Your task to perform on an android device: read, delete, or share a saved page in the chrome app Image 0: 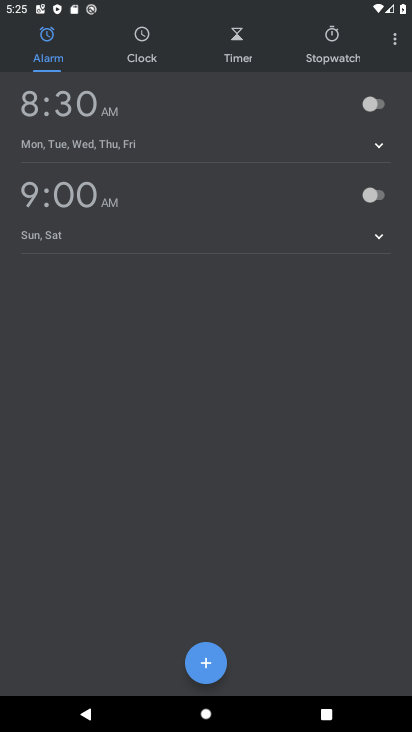
Step 0: press home button
Your task to perform on an android device: read, delete, or share a saved page in the chrome app Image 1: 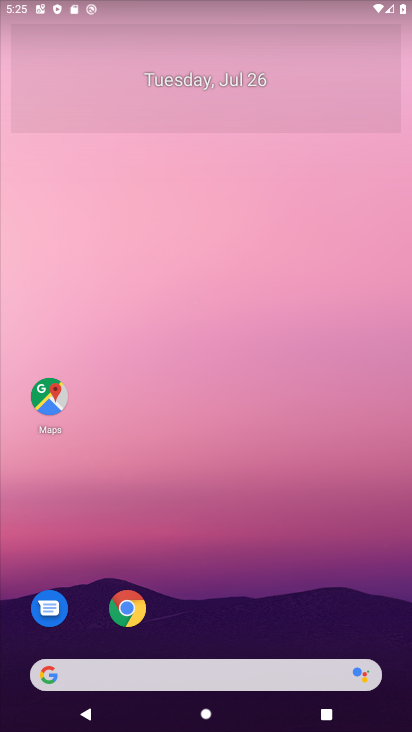
Step 1: drag from (208, 642) to (106, 16)
Your task to perform on an android device: read, delete, or share a saved page in the chrome app Image 2: 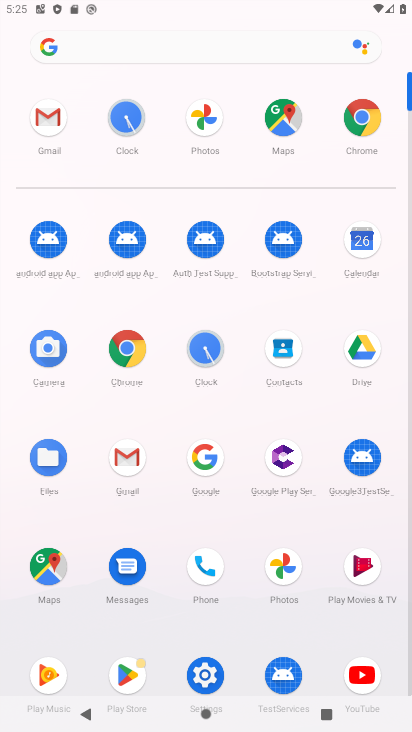
Step 2: click (369, 113)
Your task to perform on an android device: read, delete, or share a saved page in the chrome app Image 3: 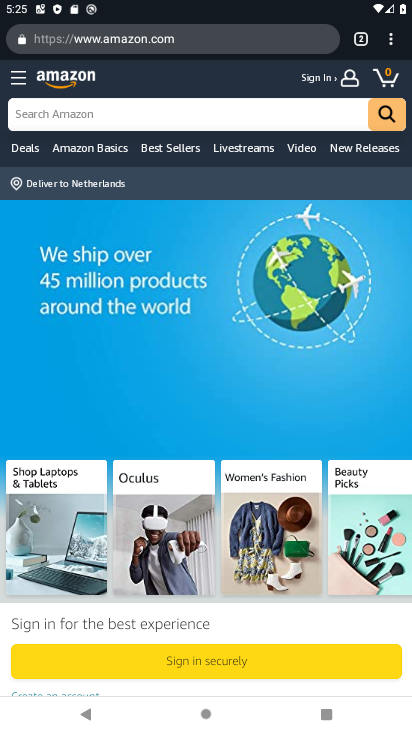
Step 3: drag from (386, 46) to (272, 254)
Your task to perform on an android device: read, delete, or share a saved page in the chrome app Image 4: 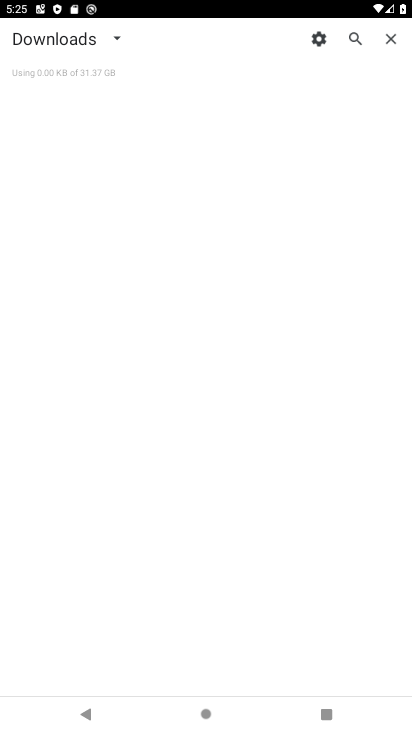
Step 4: click (117, 36)
Your task to perform on an android device: read, delete, or share a saved page in the chrome app Image 5: 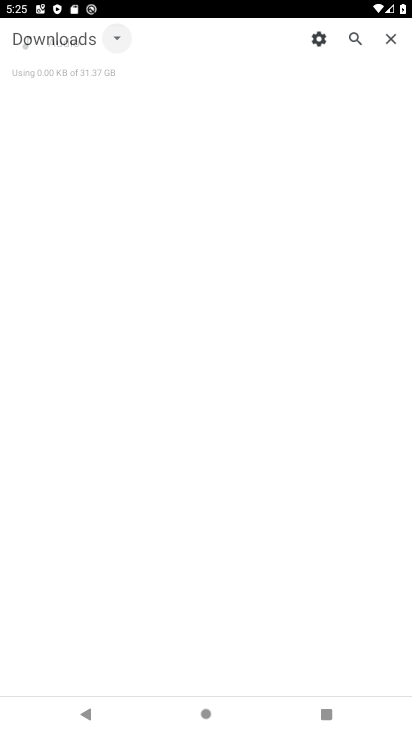
Step 5: click (117, 36)
Your task to perform on an android device: read, delete, or share a saved page in the chrome app Image 6: 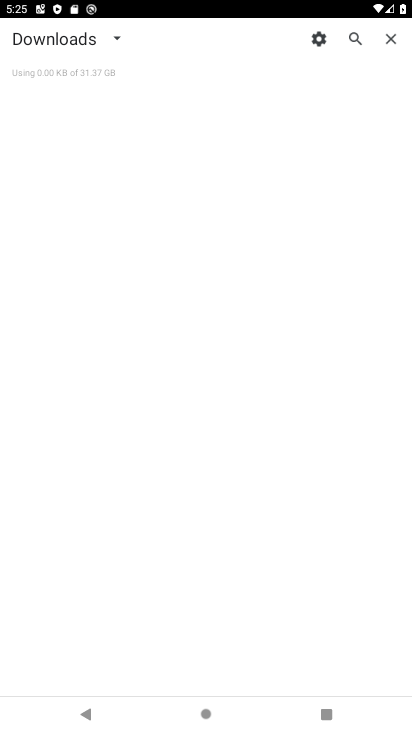
Step 6: click (112, 37)
Your task to perform on an android device: read, delete, or share a saved page in the chrome app Image 7: 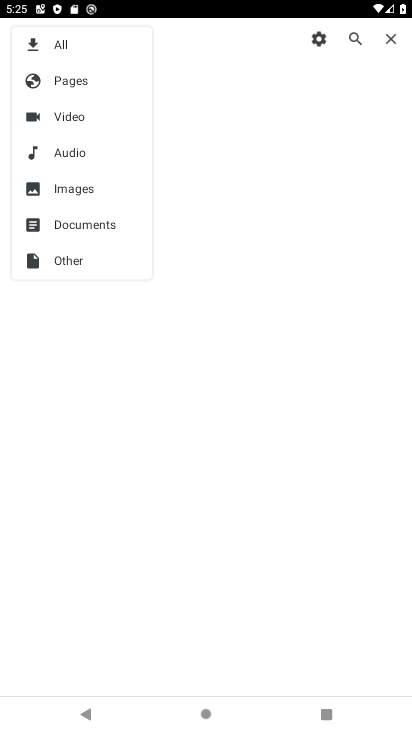
Step 7: click (65, 81)
Your task to perform on an android device: read, delete, or share a saved page in the chrome app Image 8: 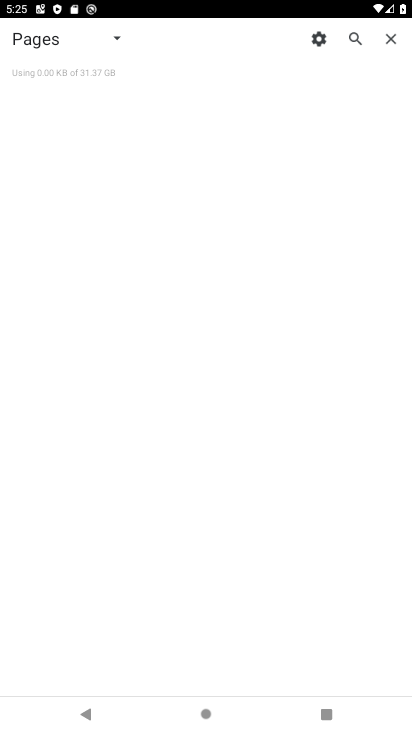
Step 8: task complete